Your task to perform on an android device: check google app version Image 0: 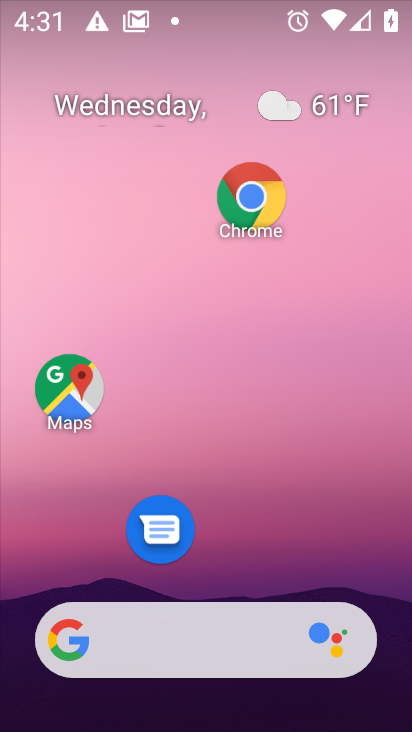
Step 0: drag from (246, 374) to (309, 199)
Your task to perform on an android device: check google app version Image 1: 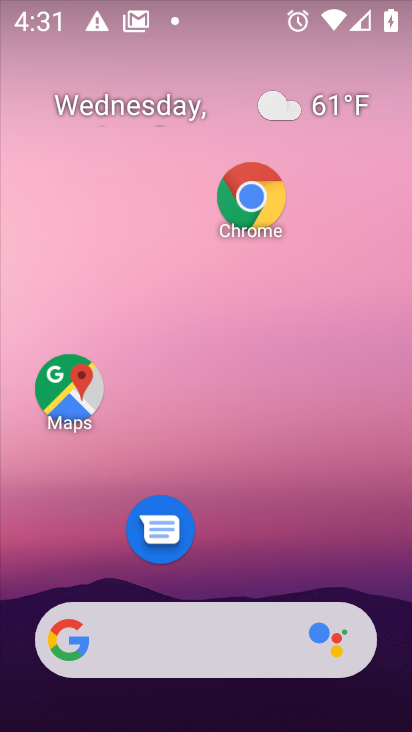
Step 1: click (71, 646)
Your task to perform on an android device: check google app version Image 2: 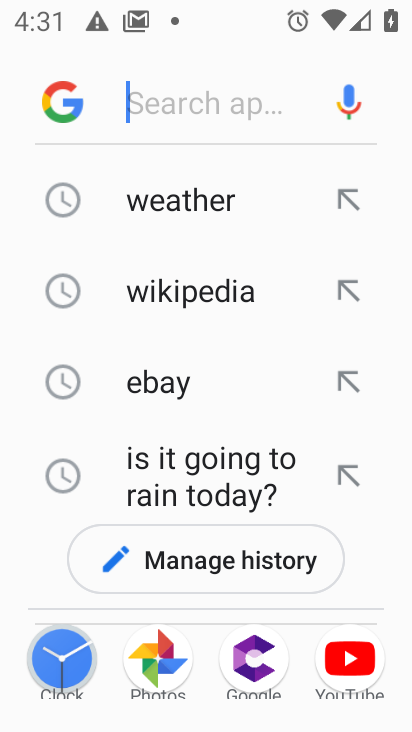
Step 2: click (55, 91)
Your task to perform on an android device: check google app version Image 3: 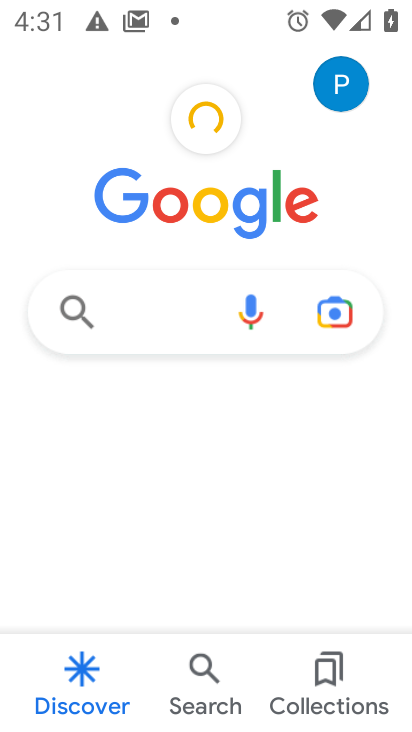
Step 3: click (353, 91)
Your task to perform on an android device: check google app version Image 4: 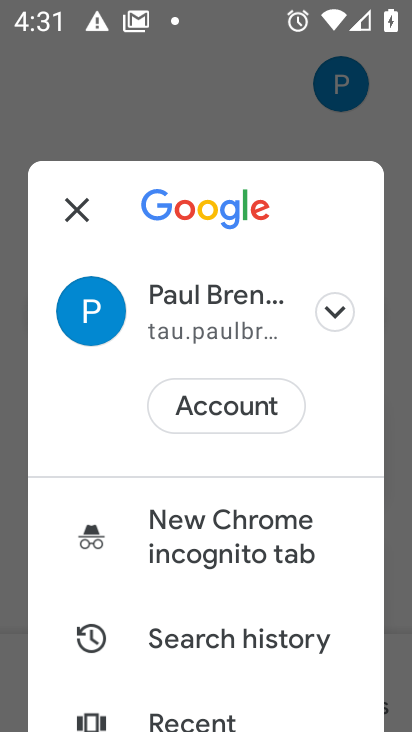
Step 4: drag from (224, 603) to (242, 171)
Your task to perform on an android device: check google app version Image 5: 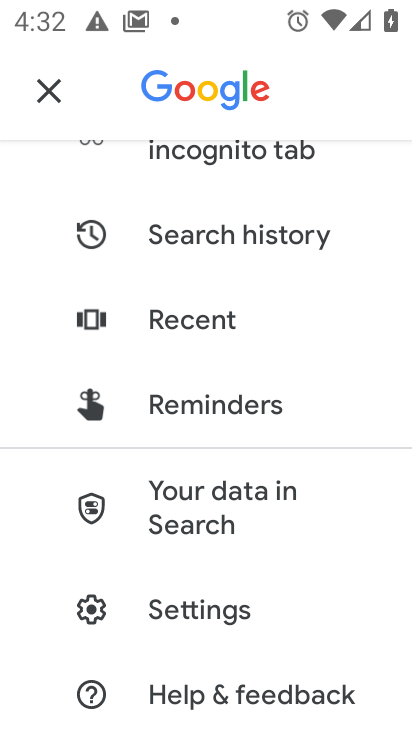
Step 5: click (213, 625)
Your task to perform on an android device: check google app version Image 6: 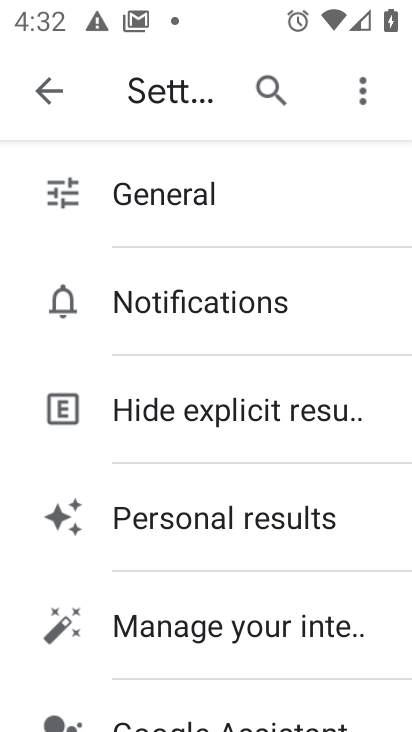
Step 6: drag from (171, 575) to (235, 3)
Your task to perform on an android device: check google app version Image 7: 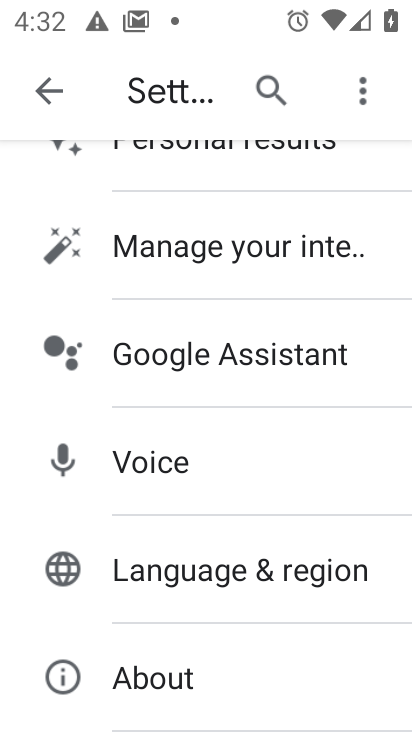
Step 7: click (195, 673)
Your task to perform on an android device: check google app version Image 8: 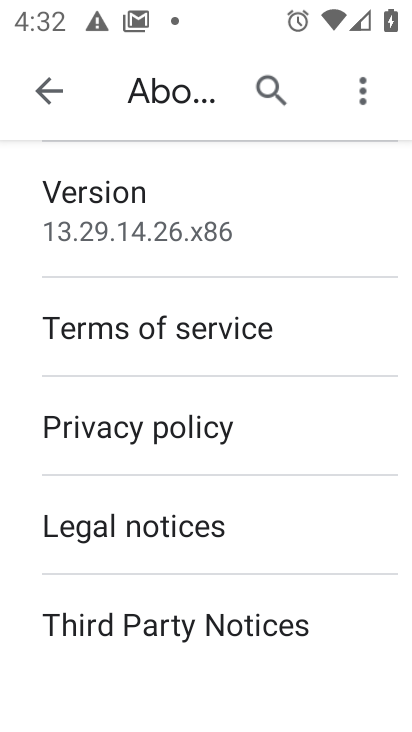
Step 8: task complete